Your task to perform on an android device: turn on sleep mode Image 0: 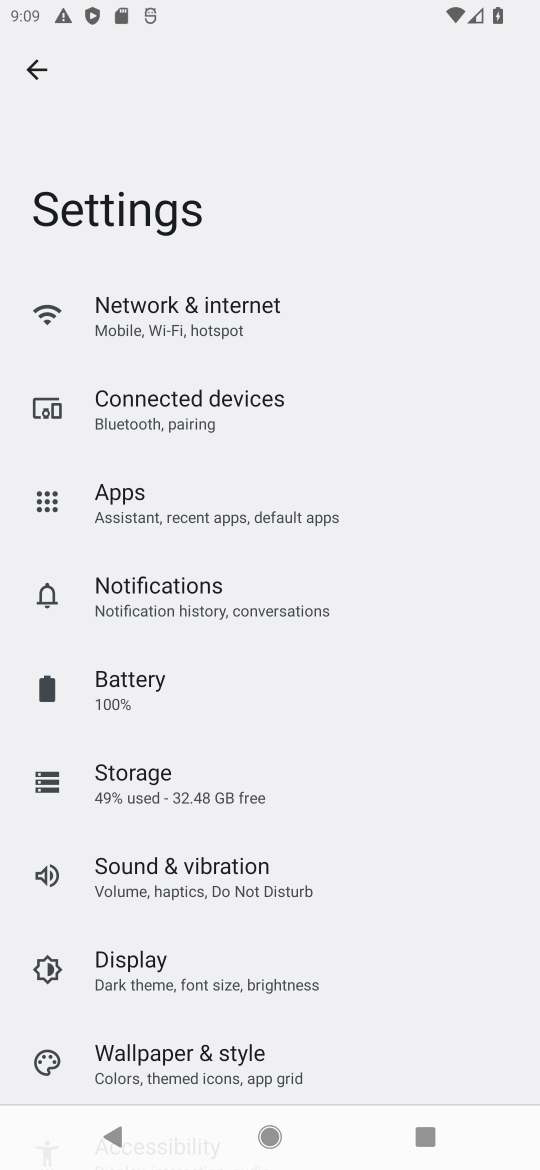
Step 0: task impossible